Your task to perform on an android device: make emails show in primary in the gmail app Image 0: 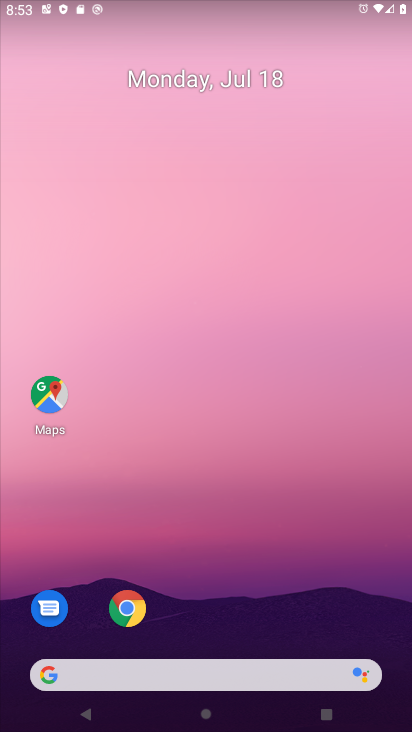
Step 0: drag from (268, 529) to (265, 127)
Your task to perform on an android device: make emails show in primary in the gmail app Image 1: 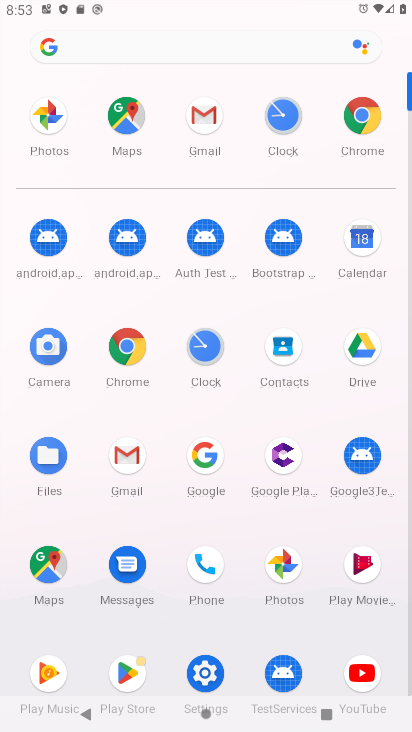
Step 1: click (133, 461)
Your task to perform on an android device: make emails show in primary in the gmail app Image 2: 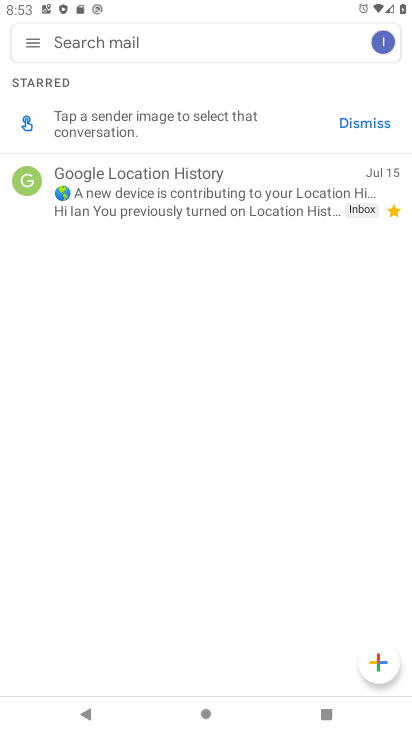
Step 2: click (28, 37)
Your task to perform on an android device: make emails show in primary in the gmail app Image 3: 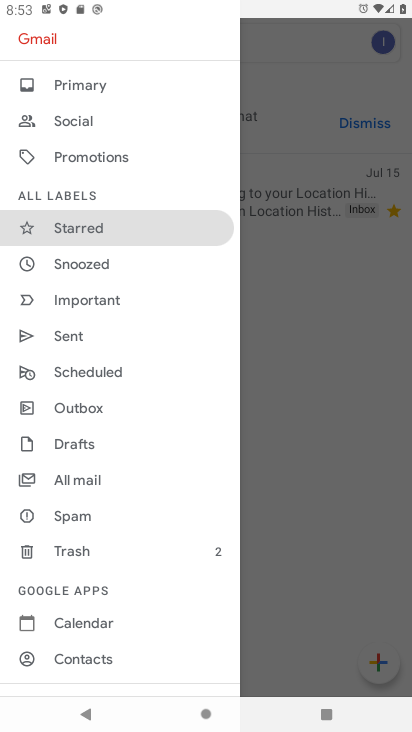
Step 3: drag from (86, 638) to (110, 270)
Your task to perform on an android device: make emails show in primary in the gmail app Image 4: 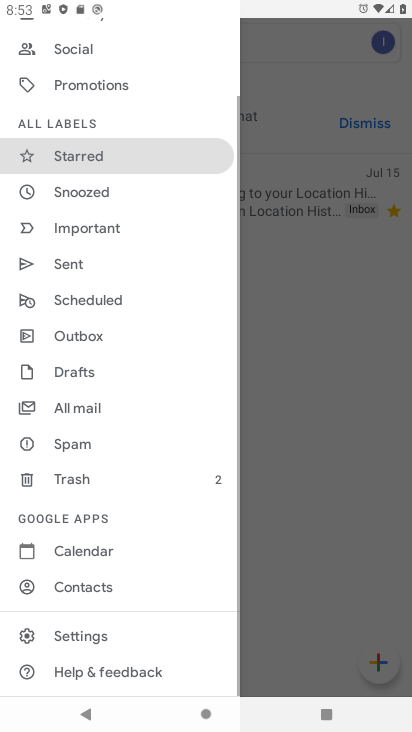
Step 4: click (80, 634)
Your task to perform on an android device: make emails show in primary in the gmail app Image 5: 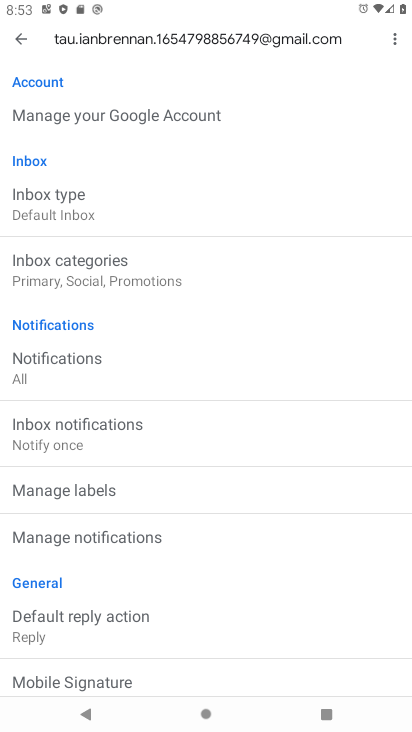
Step 5: click (69, 270)
Your task to perform on an android device: make emails show in primary in the gmail app Image 6: 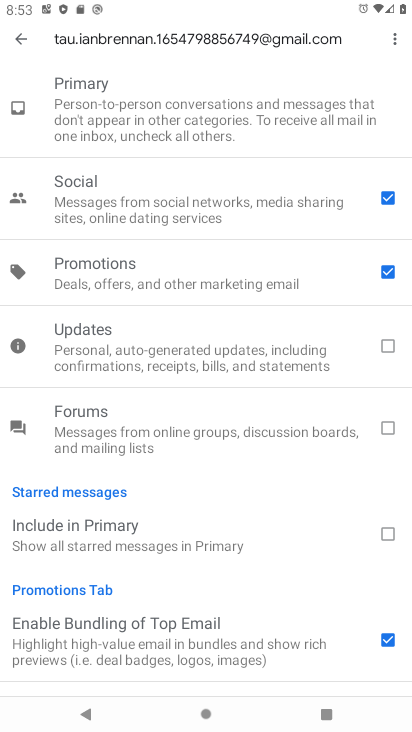
Step 6: click (385, 268)
Your task to perform on an android device: make emails show in primary in the gmail app Image 7: 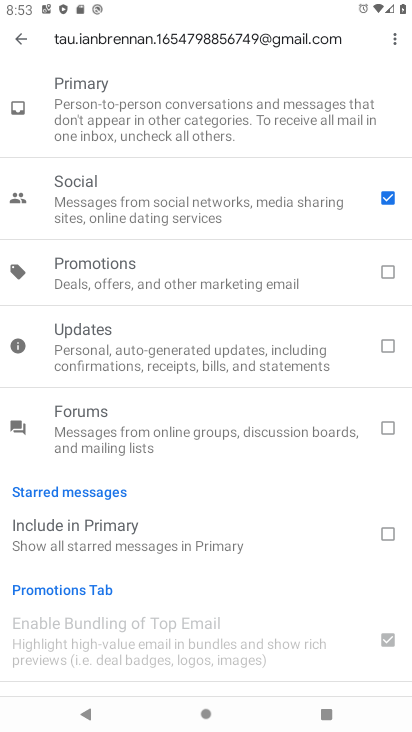
Step 7: click (390, 193)
Your task to perform on an android device: make emails show in primary in the gmail app Image 8: 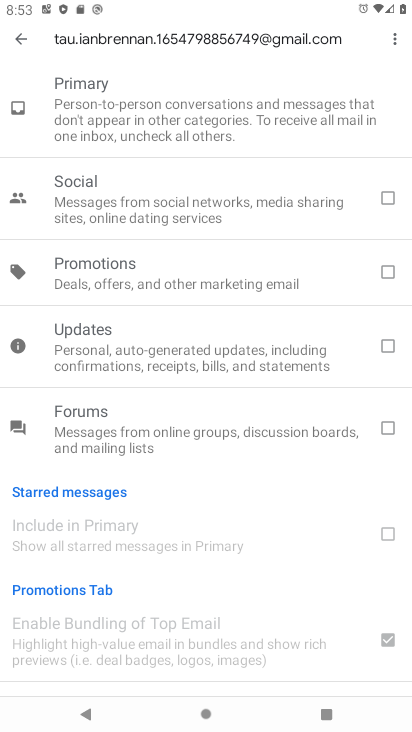
Step 8: click (21, 42)
Your task to perform on an android device: make emails show in primary in the gmail app Image 9: 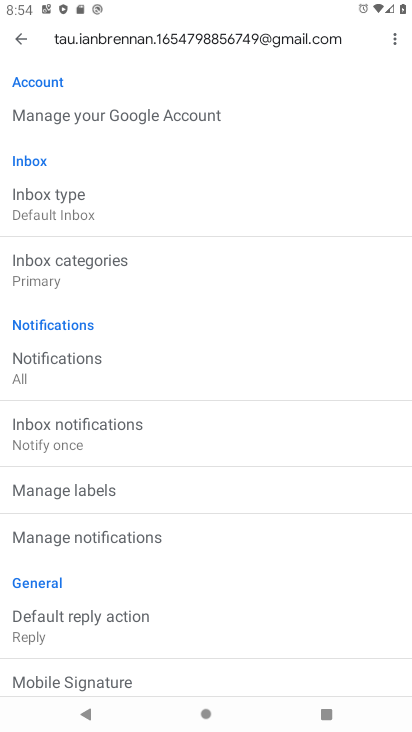
Step 9: task complete